Your task to perform on an android device: turn on translation in the chrome app Image 0: 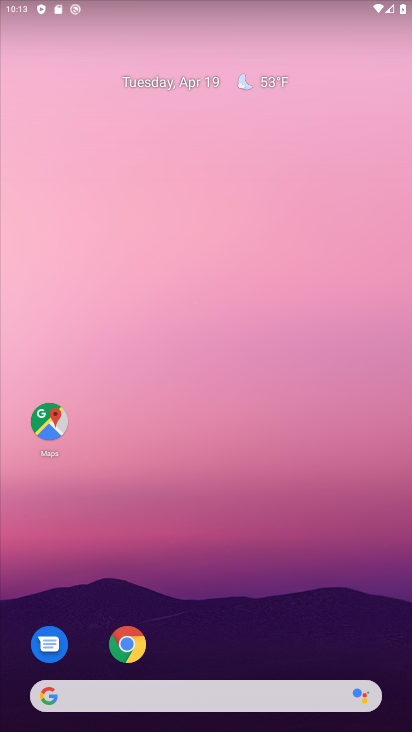
Step 0: click (132, 642)
Your task to perform on an android device: turn on translation in the chrome app Image 1: 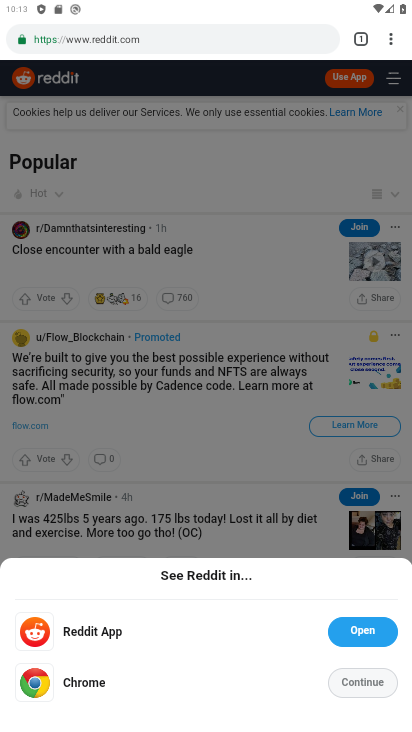
Step 1: click (390, 34)
Your task to perform on an android device: turn on translation in the chrome app Image 2: 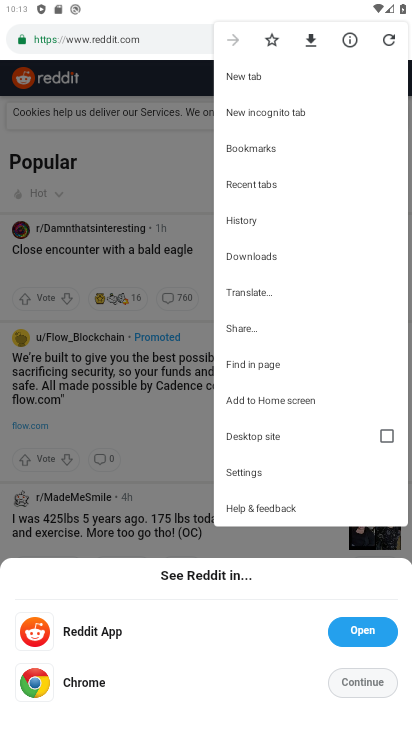
Step 2: click (258, 474)
Your task to perform on an android device: turn on translation in the chrome app Image 3: 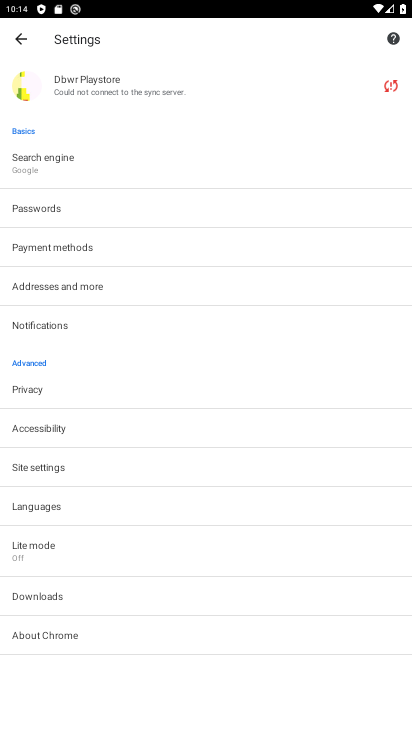
Step 3: click (114, 514)
Your task to perform on an android device: turn on translation in the chrome app Image 4: 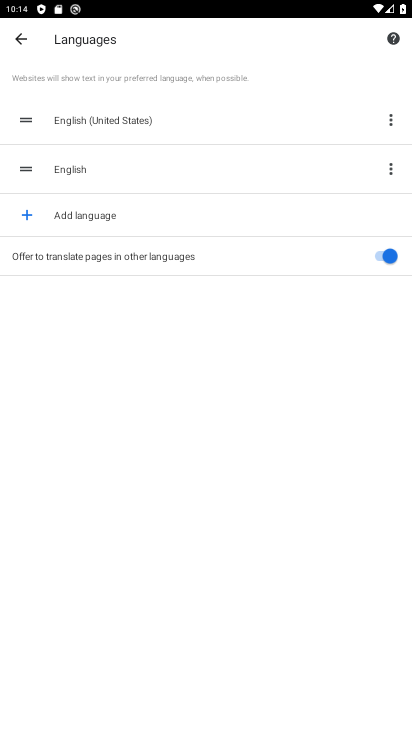
Step 4: task complete